Your task to perform on an android device: turn off notifications in google photos Image 0: 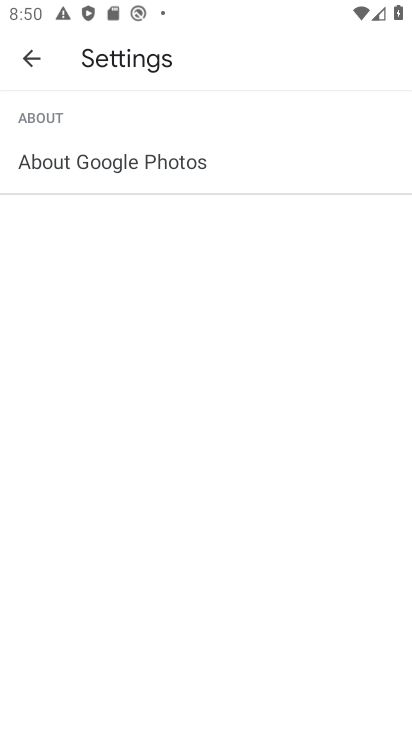
Step 0: press home button
Your task to perform on an android device: turn off notifications in google photos Image 1: 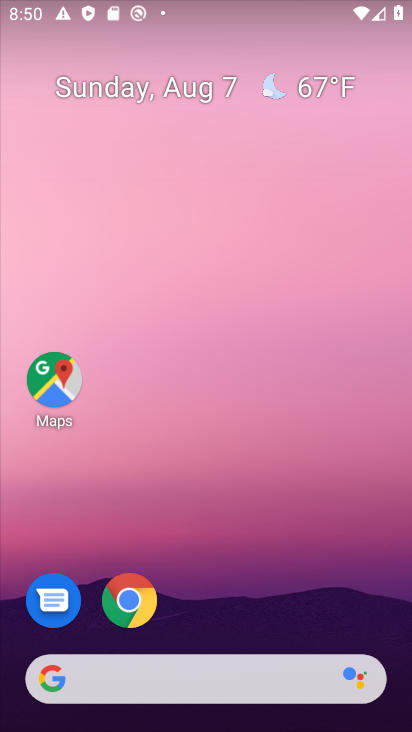
Step 1: drag from (190, 560) to (190, 234)
Your task to perform on an android device: turn off notifications in google photos Image 2: 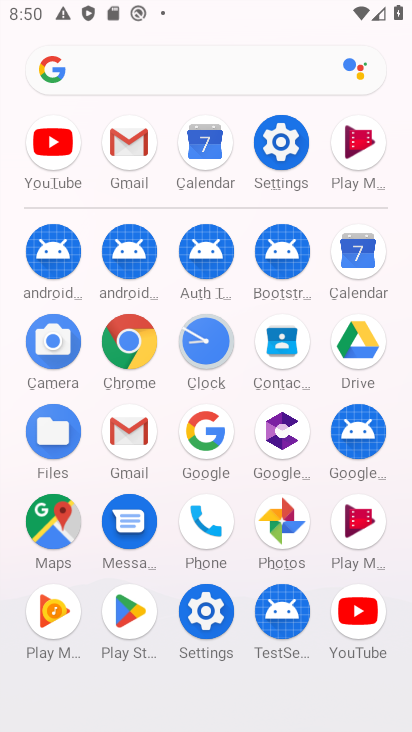
Step 2: click (269, 549)
Your task to perform on an android device: turn off notifications in google photos Image 3: 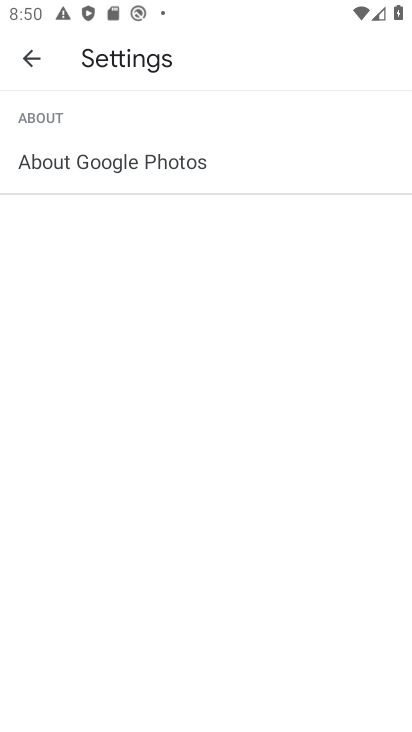
Step 3: click (33, 69)
Your task to perform on an android device: turn off notifications in google photos Image 4: 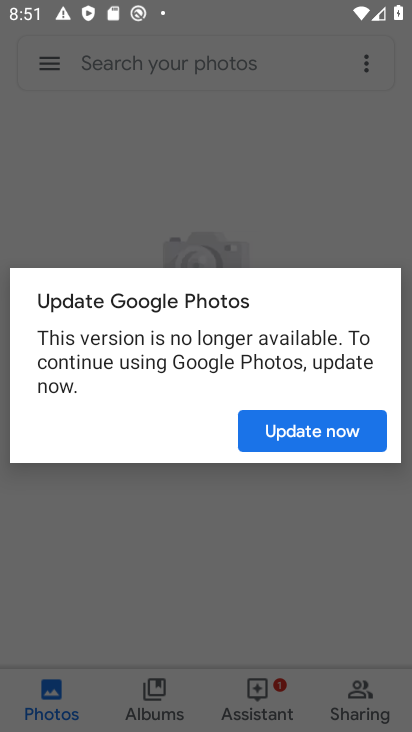
Step 4: click (322, 434)
Your task to perform on an android device: turn off notifications in google photos Image 5: 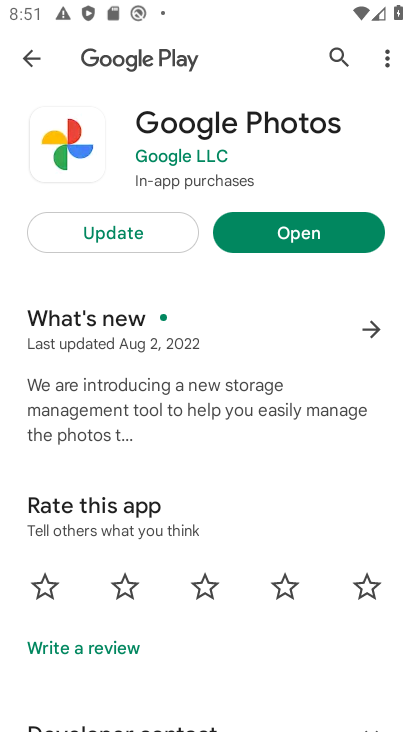
Step 5: click (106, 242)
Your task to perform on an android device: turn off notifications in google photos Image 6: 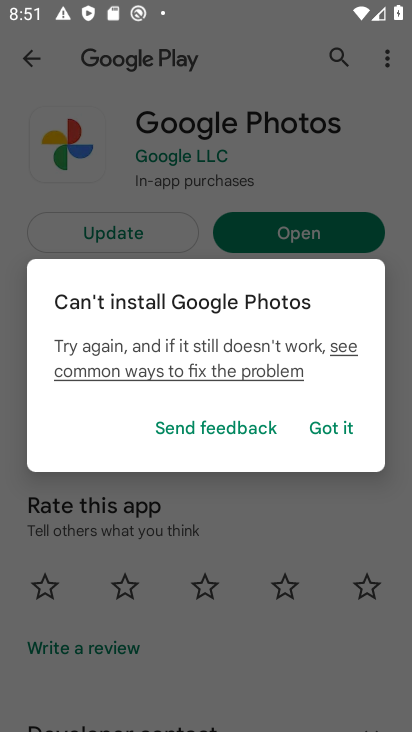
Step 6: click (339, 428)
Your task to perform on an android device: turn off notifications in google photos Image 7: 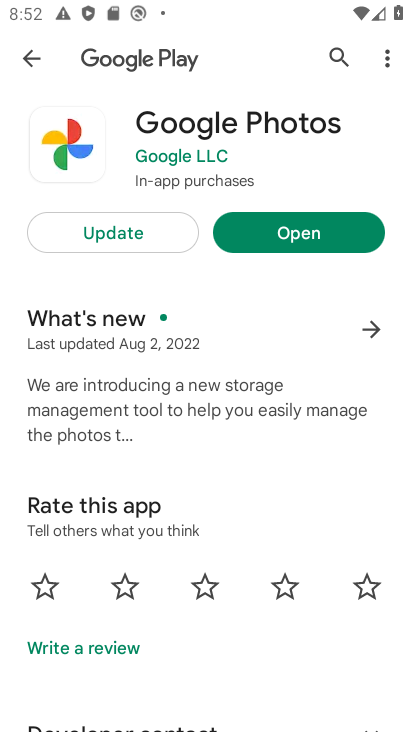
Step 7: click (295, 229)
Your task to perform on an android device: turn off notifications in google photos Image 8: 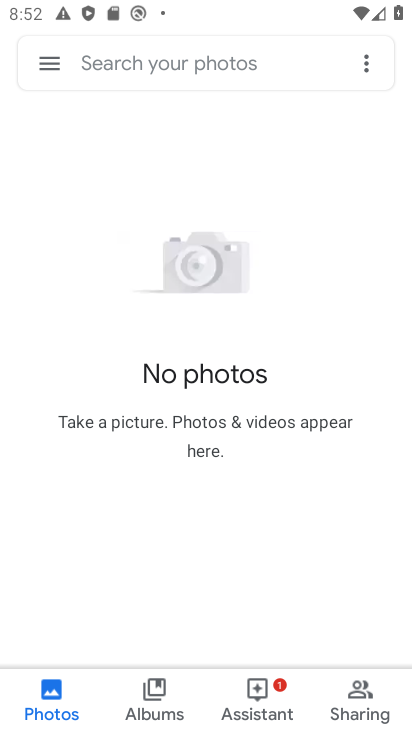
Step 8: click (44, 64)
Your task to perform on an android device: turn off notifications in google photos Image 9: 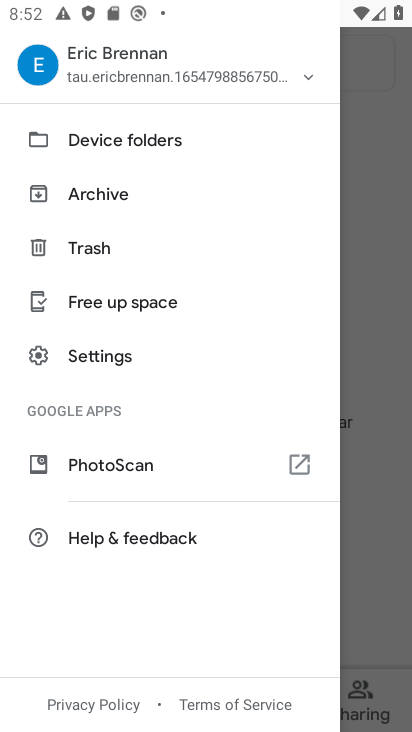
Step 9: click (115, 362)
Your task to perform on an android device: turn off notifications in google photos Image 10: 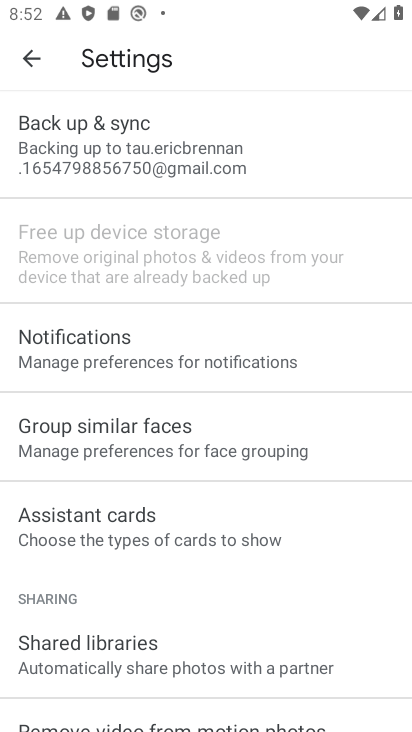
Step 10: click (115, 362)
Your task to perform on an android device: turn off notifications in google photos Image 11: 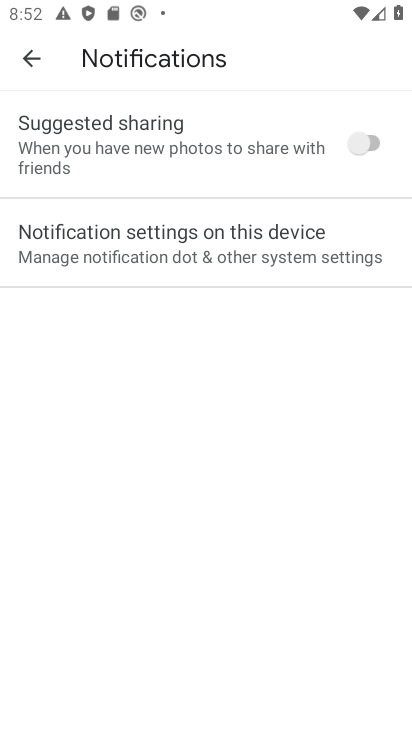
Step 11: click (249, 229)
Your task to perform on an android device: turn off notifications in google photos Image 12: 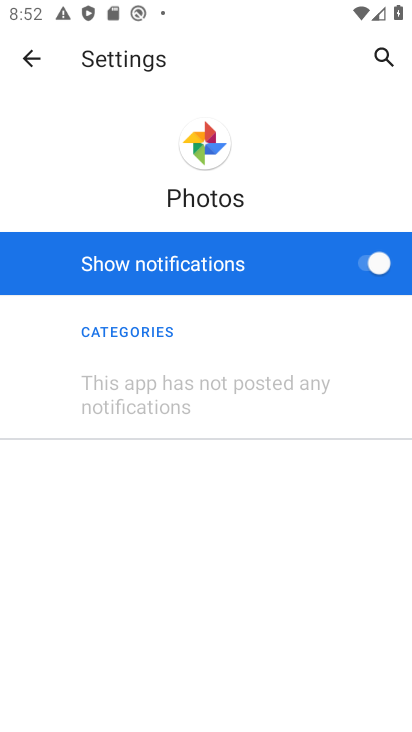
Step 12: click (362, 260)
Your task to perform on an android device: turn off notifications in google photos Image 13: 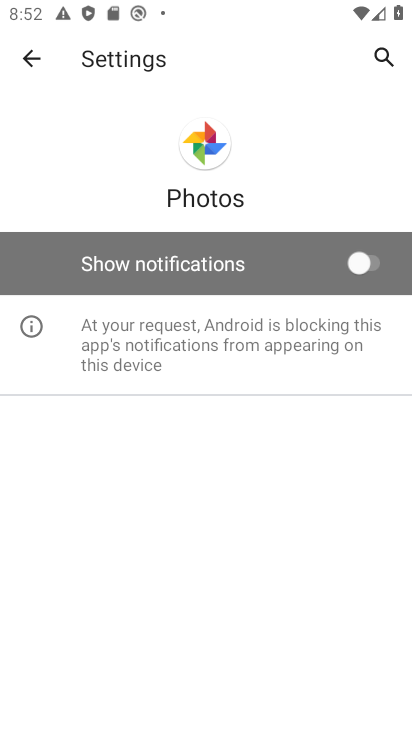
Step 13: task complete